Your task to perform on an android device: Open Android settings Image 0: 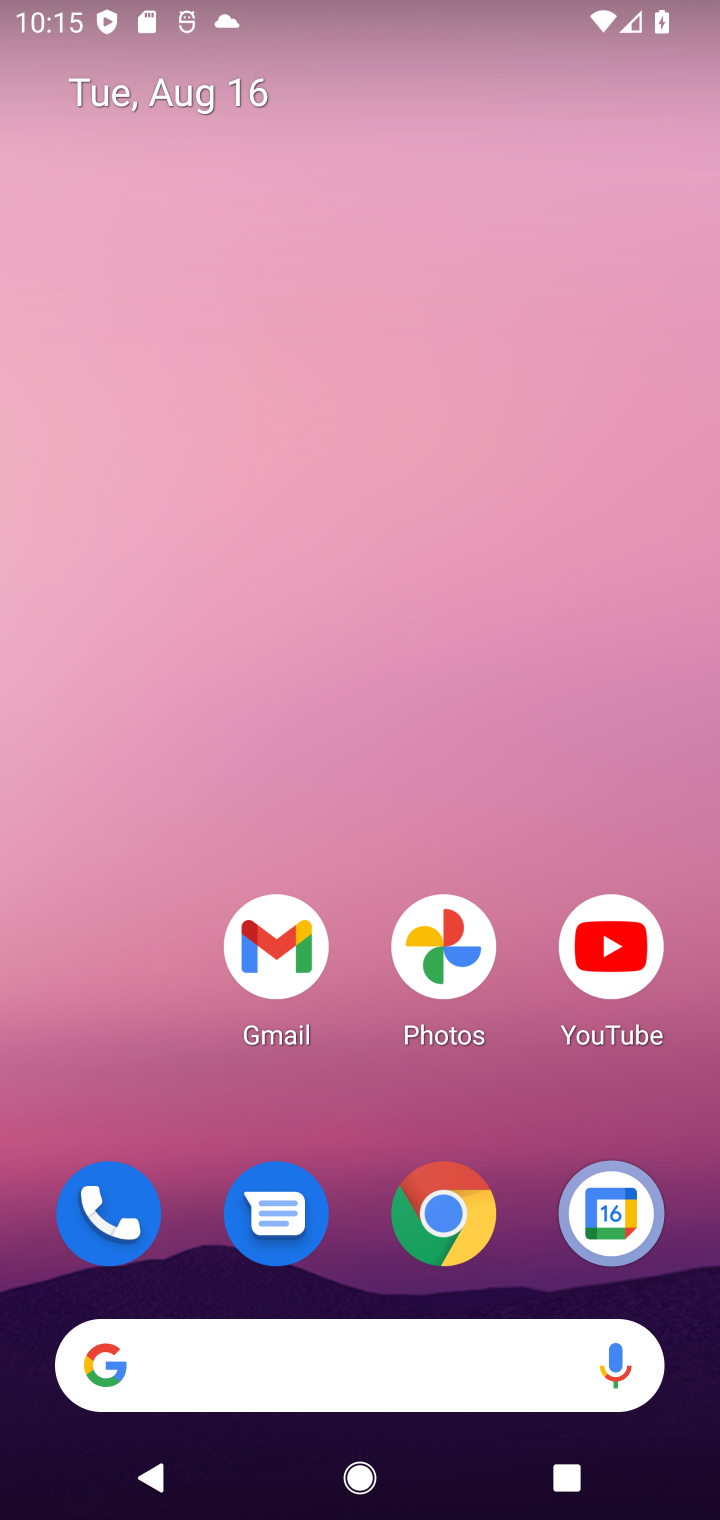
Step 0: drag from (421, 1061) to (431, 720)
Your task to perform on an android device: Open Android settings Image 1: 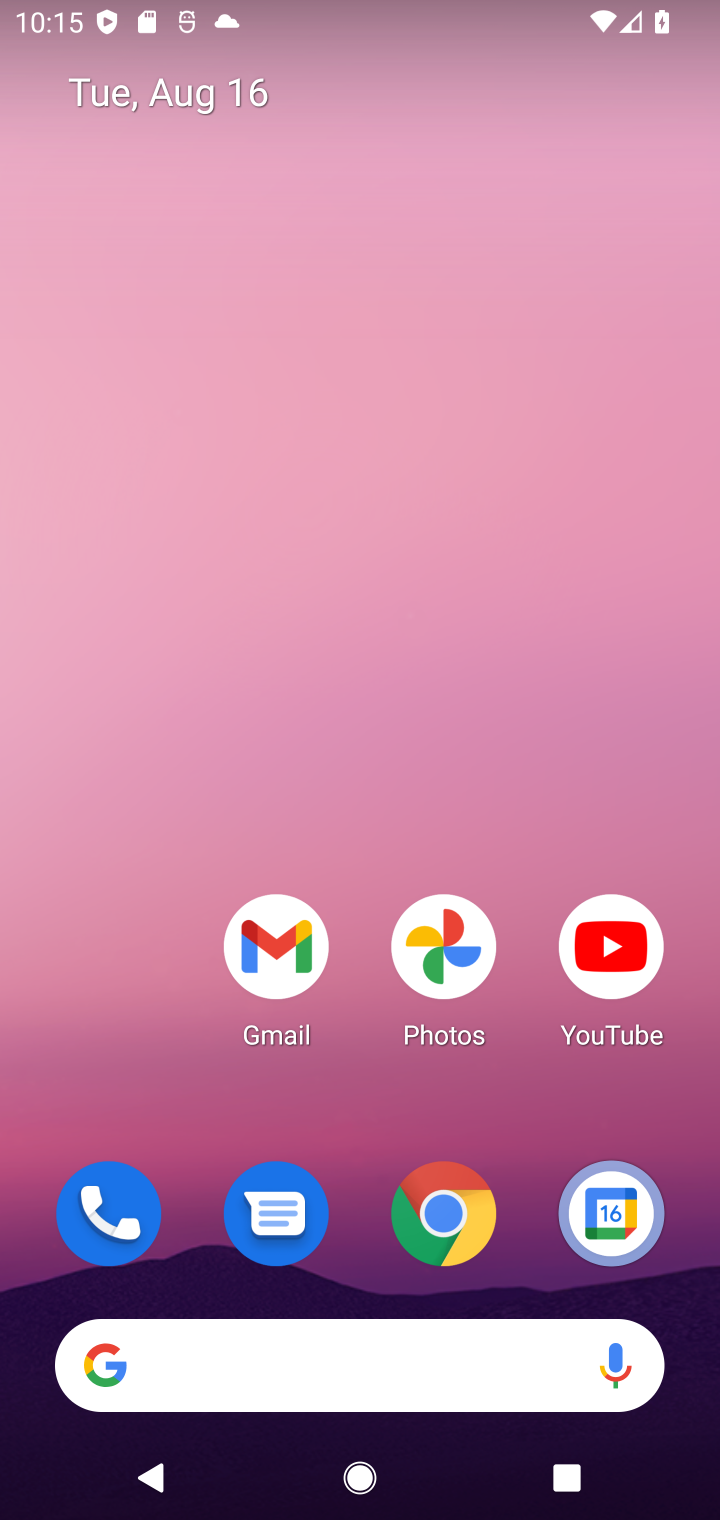
Step 1: drag from (305, 1168) to (366, 169)
Your task to perform on an android device: Open Android settings Image 2: 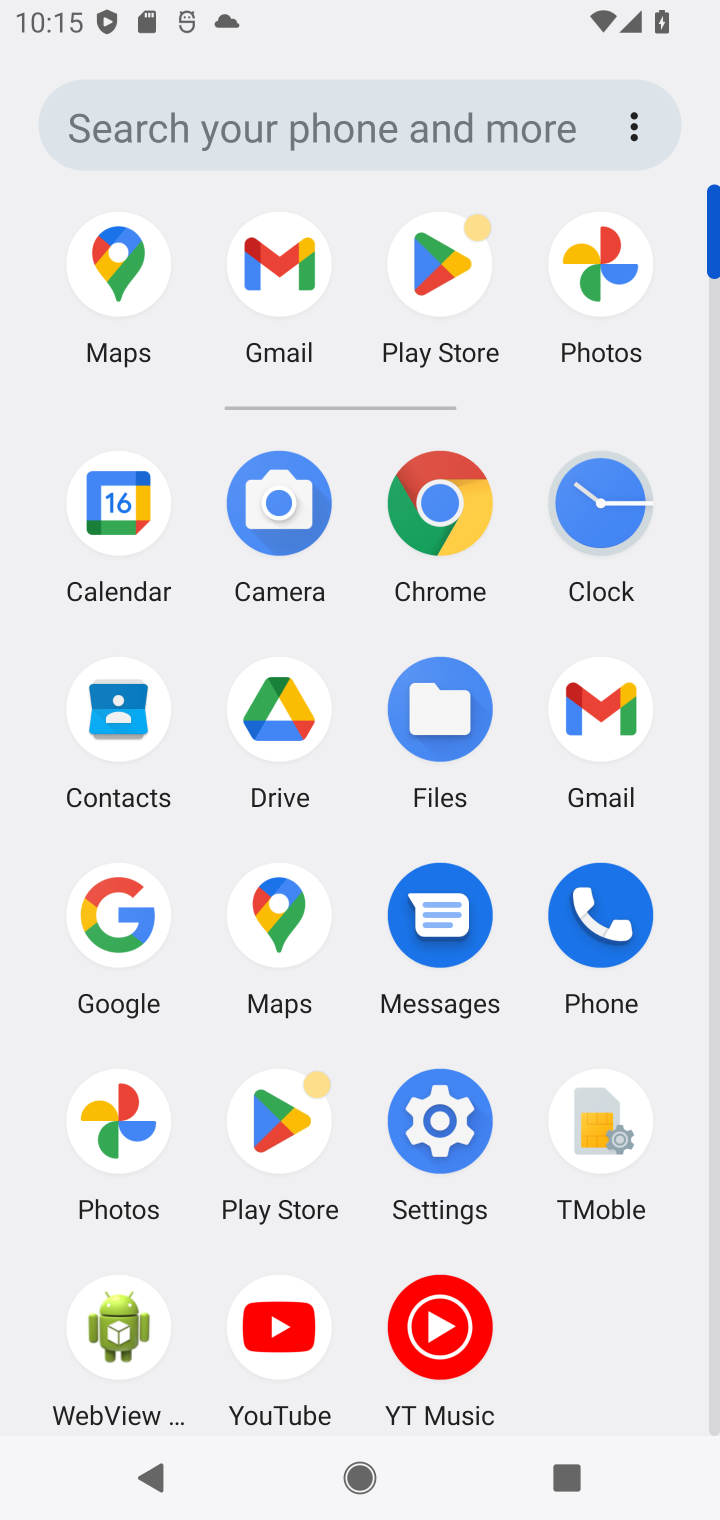
Step 2: click (396, 1109)
Your task to perform on an android device: Open Android settings Image 3: 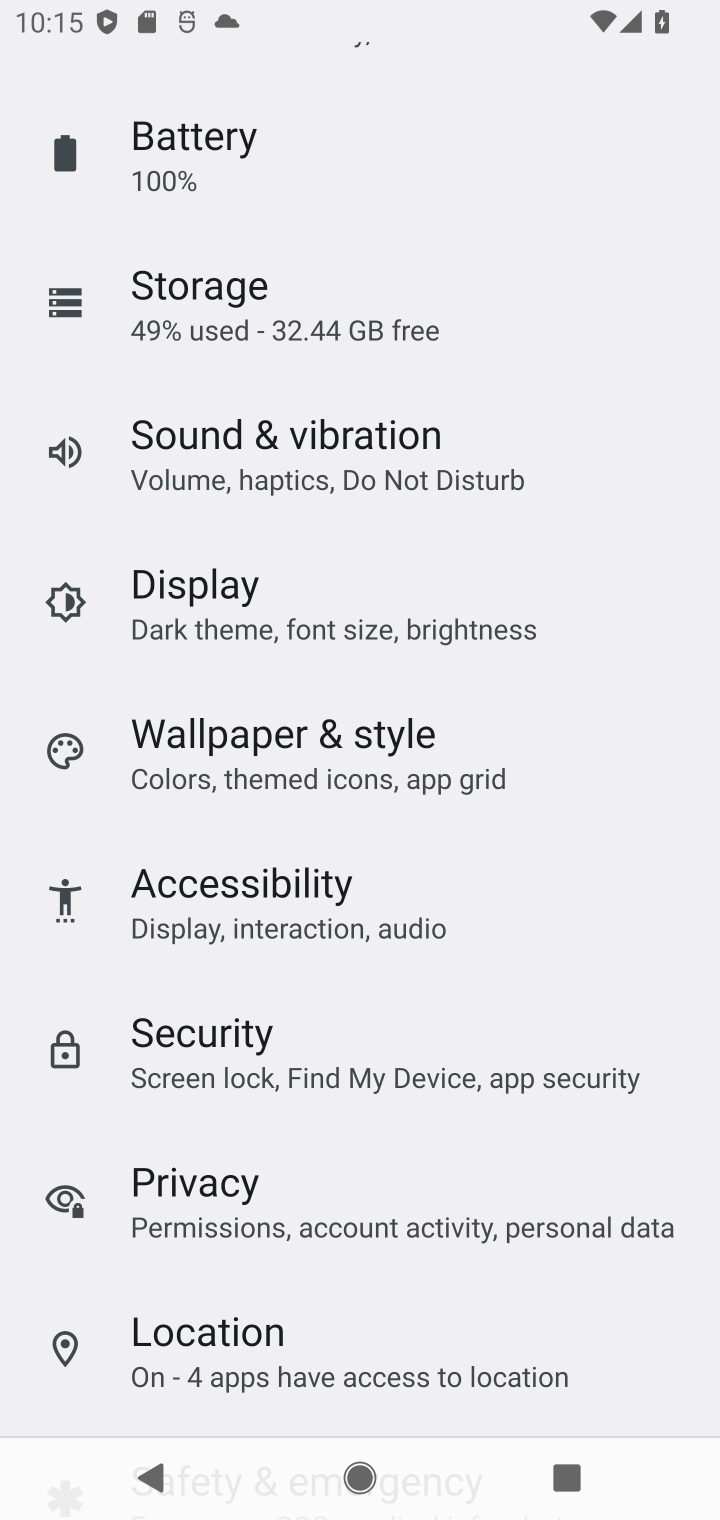
Step 3: task complete